Your task to perform on an android device: open app "File Manager" Image 0: 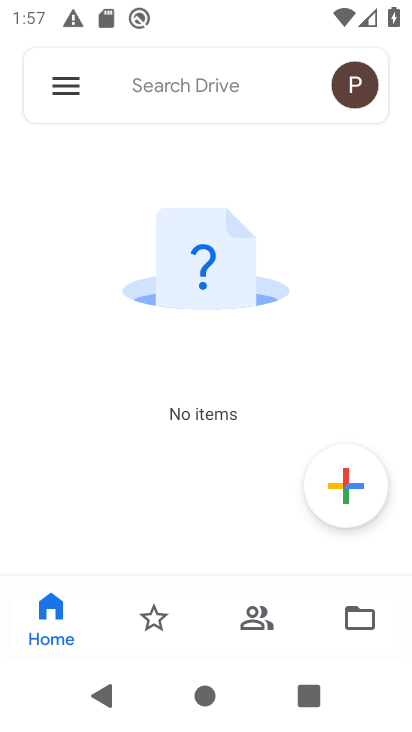
Step 0: press home button
Your task to perform on an android device: open app "File Manager" Image 1: 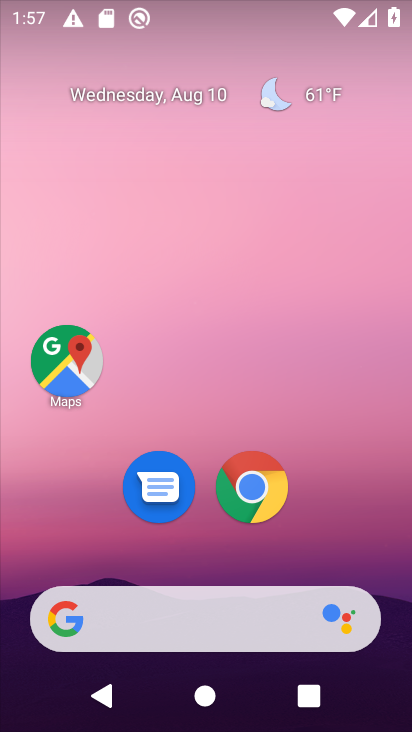
Step 1: drag from (170, 537) to (186, 229)
Your task to perform on an android device: open app "File Manager" Image 2: 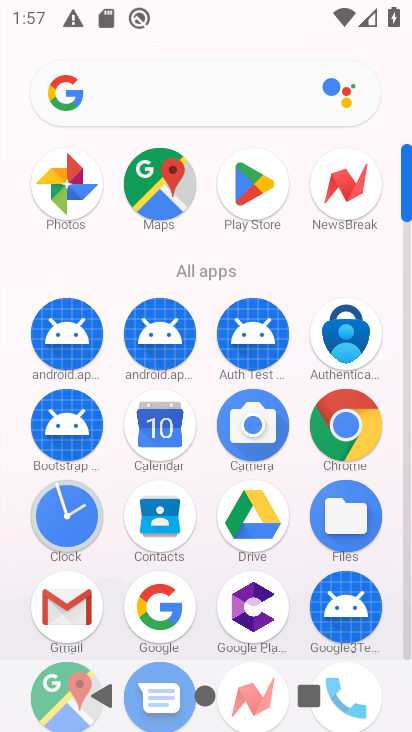
Step 2: click (336, 506)
Your task to perform on an android device: open app "File Manager" Image 3: 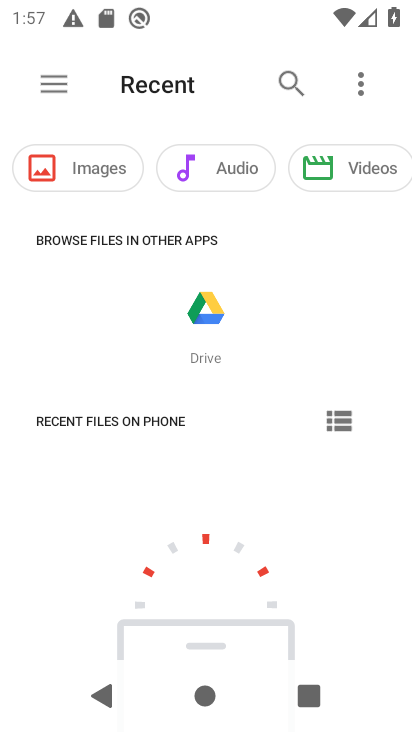
Step 3: task complete